Your task to perform on an android device: turn off location Image 0: 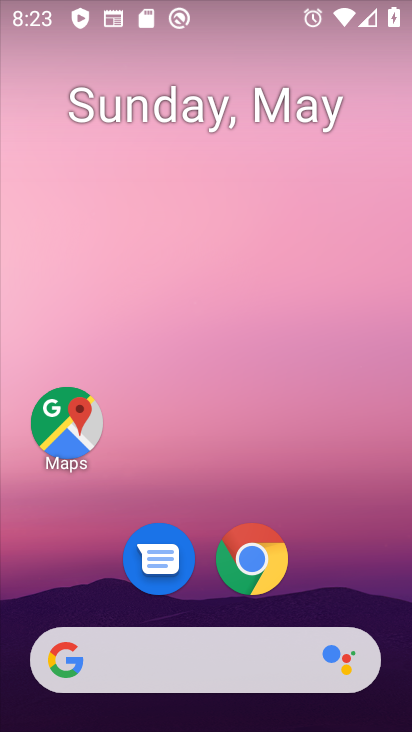
Step 0: drag from (34, 552) to (218, 224)
Your task to perform on an android device: turn off location Image 1: 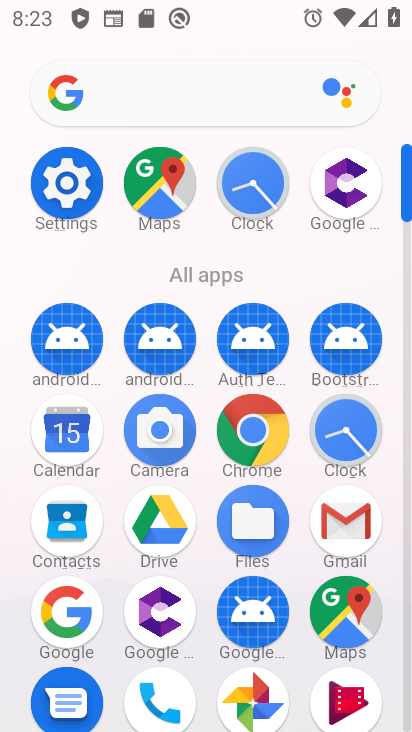
Step 1: click (61, 195)
Your task to perform on an android device: turn off location Image 2: 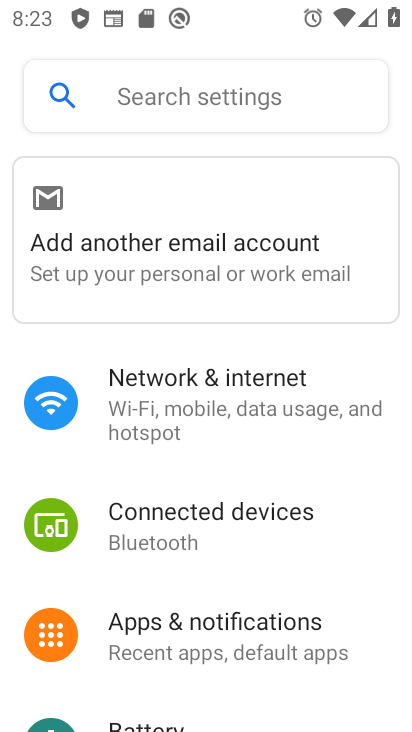
Step 2: drag from (106, 673) to (223, 252)
Your task to perform on an android device: turn off location Image 3: 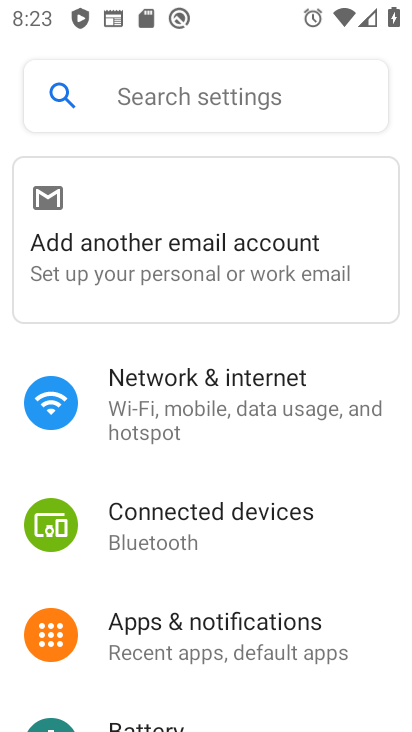
Step 3: drag from (161, 700) to (255, 312)
Your task to perform on an android device: turn off location Image 4: 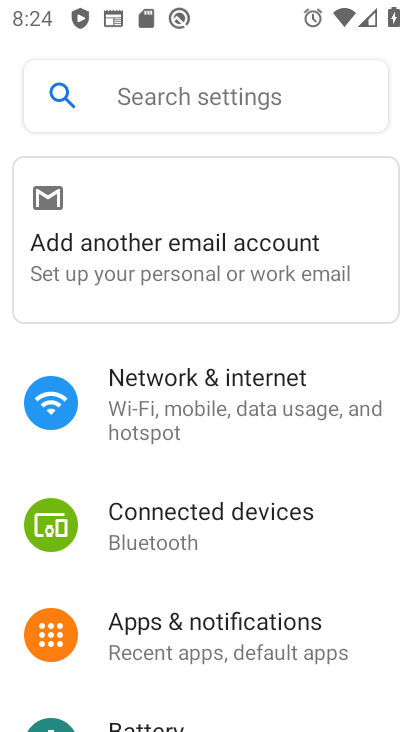
Step 4: drag from (30, 693) to (195, 270)
Your task to perform on an android device: turn off location Image 5: 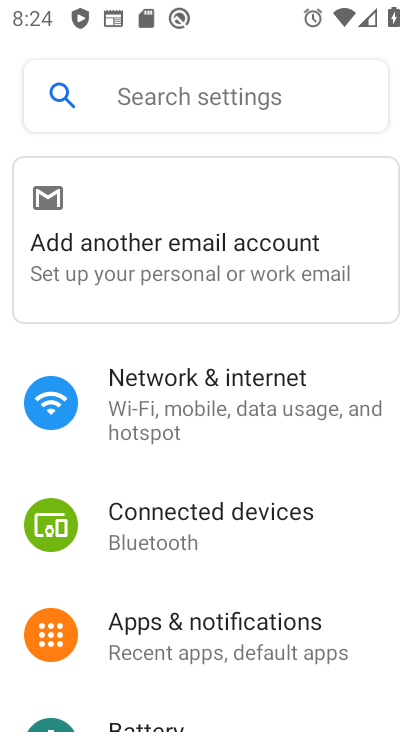
Step 5: drag from (43, 730) to (280, 270)
Your task to perform on an android device: turn off location Image 6: 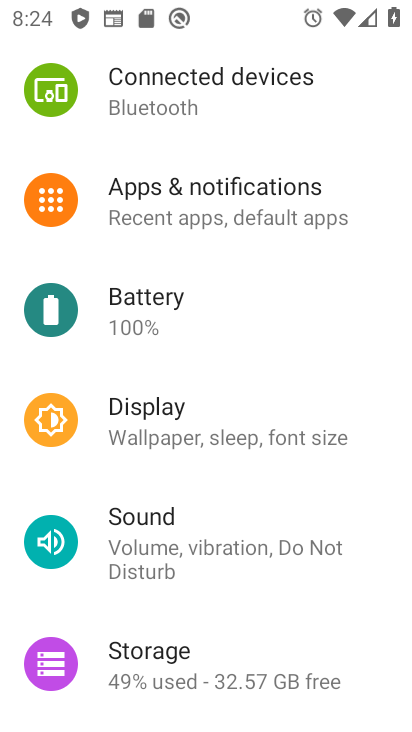
Step 6: drag from (15, 647) to (171, 369)
Your task to perform on an android device: turn off location Image 7: 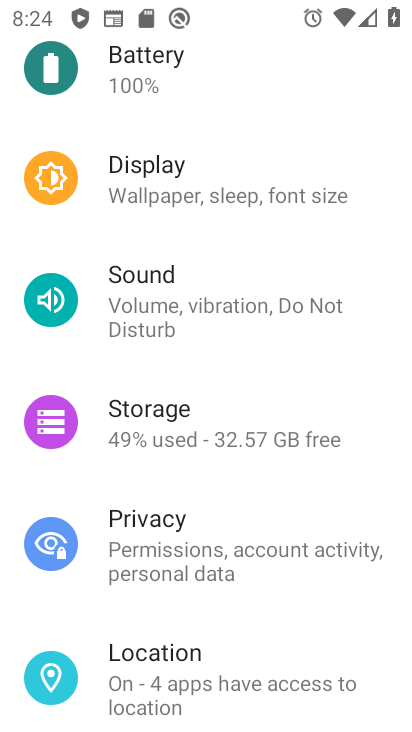
Step 7: click (179, 688)
Your task to perform on an android device: turn off location Image 8: 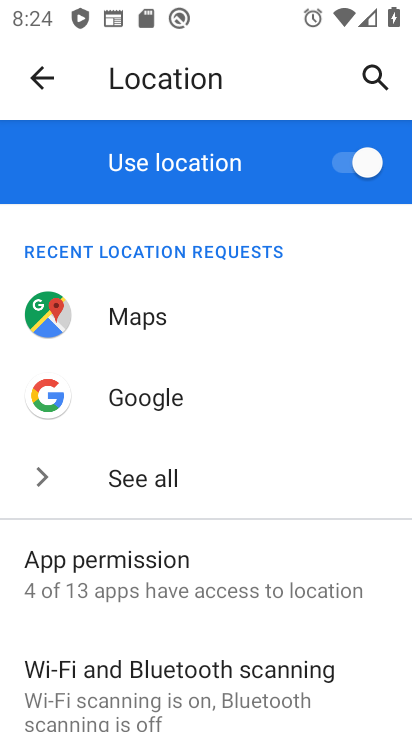
Step 8: click (368, 162)
Your task to perform on an android device: turn off location Image 9: 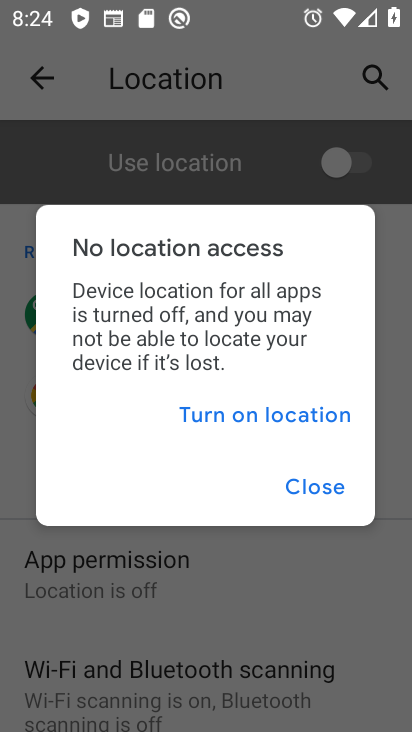
Step 9: task complete